Your task to perform on an android device: open chrome privacy settings Image 0: 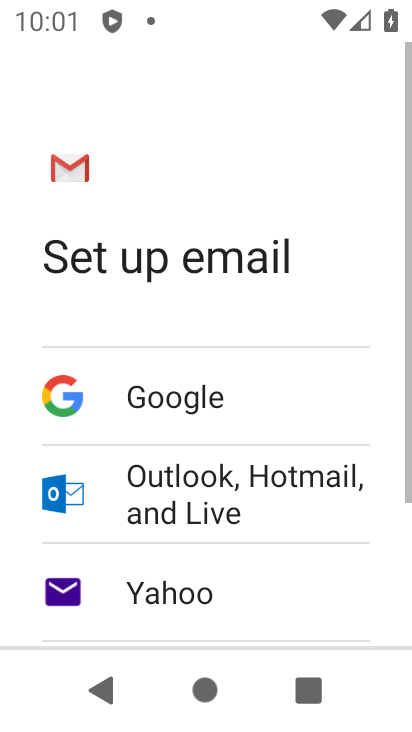
Step 0: press home button
Your task to perform on an android device: open chrome privacy settings Image 1: 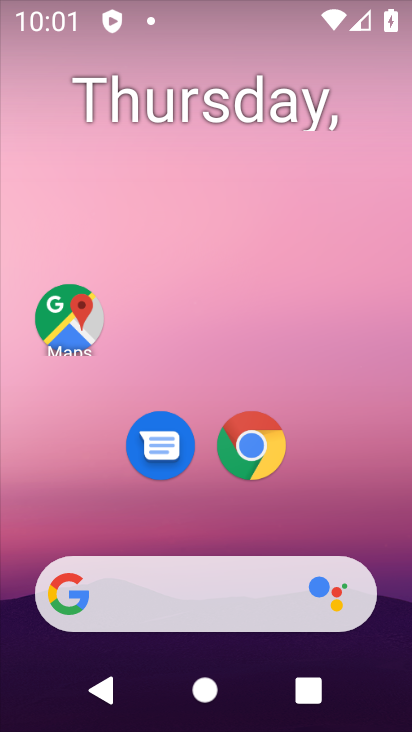
Step 1: drag from (201, 517) to (338, 41)
Your task to perform on an android device: open chrome privacy settings Image 2: 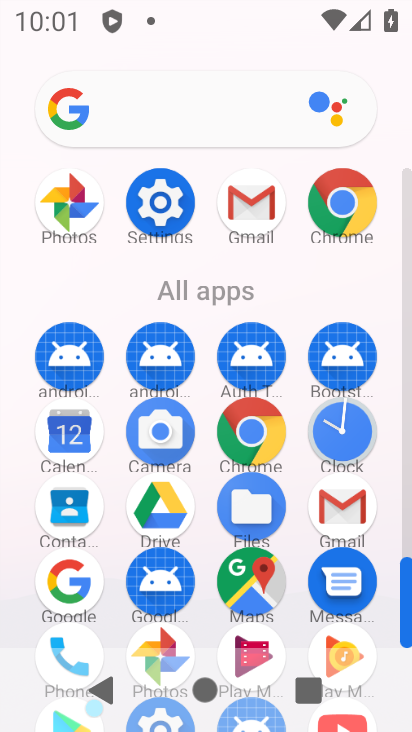
Step 2: click (267, 439)
Your task to perform on an android device: open chrome privacy settings Image 3: 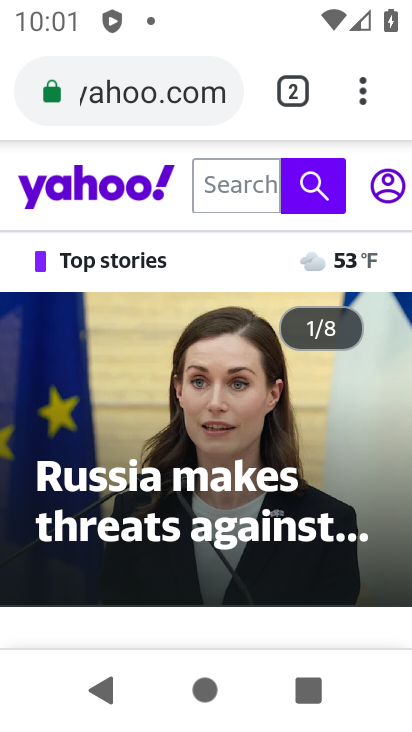
Step 3: click (361, 98)
Your task to perform on an android device: open chrome privacy settings Image 4: 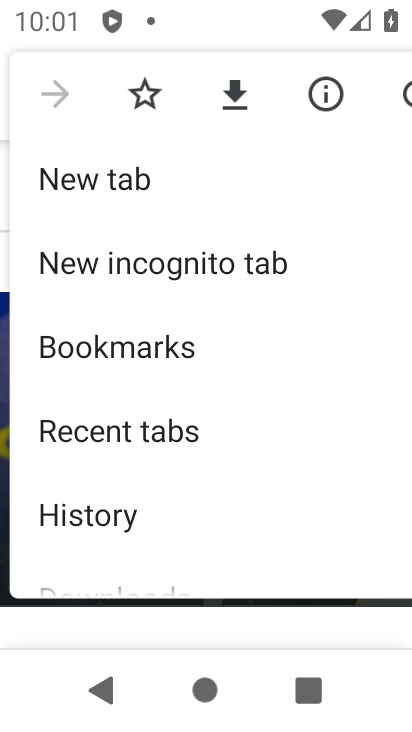
Step 4: drag from (149, 480) to (214, 219)
Your task to perform on an android device: open chrome privacy settings Image 5: 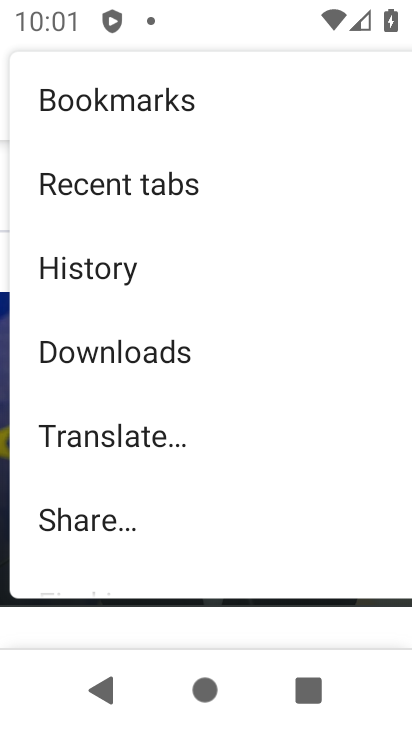
Step 5: drag from (148, 494) to (184, 236)
Your task to perform on an android device: open chrome privacy settings Image 6: 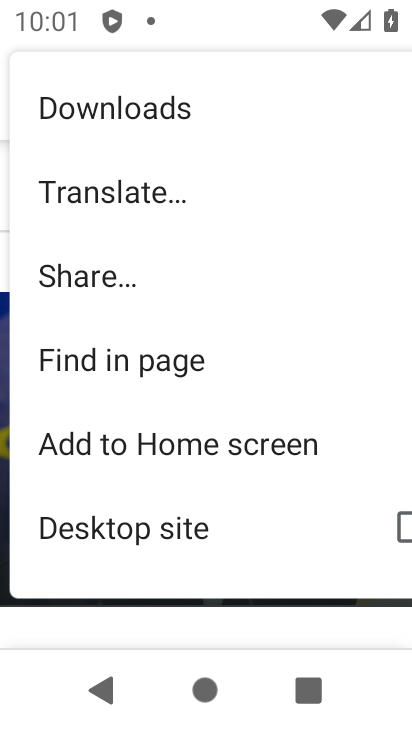
Step 6: drag from (111, 513) to (184, 247)
Your task to perform on an android device: open chrome privacy settings Image 7: 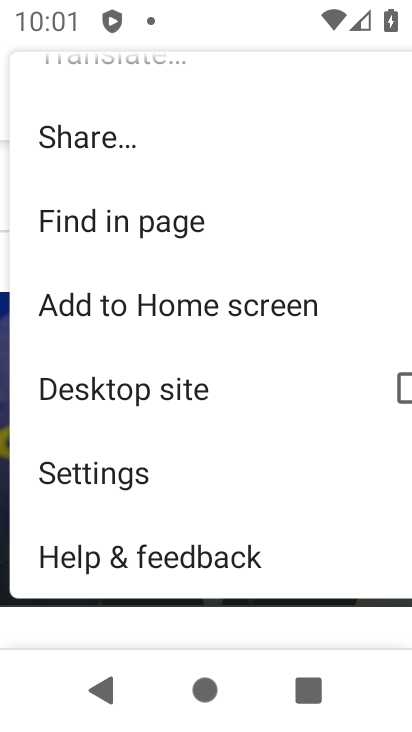
Step 7: click (118, 475)
Your task to perform on an android device: open chrome privacy settings Image 8: 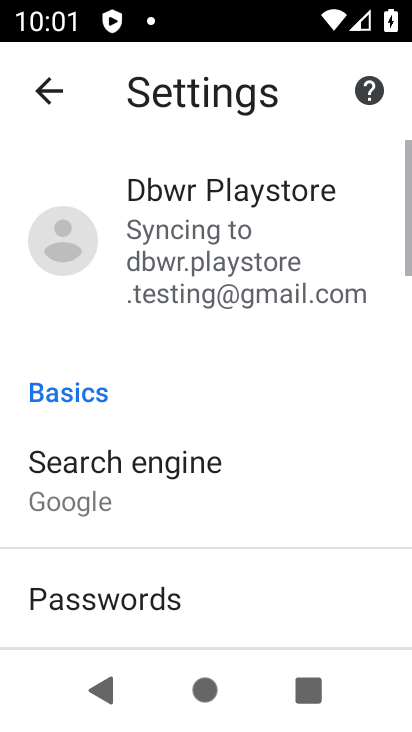
Step 8: drag from (151, 531) to (259, 96)
Your task to perform on an android device: open chrome privacy settings Image 9: 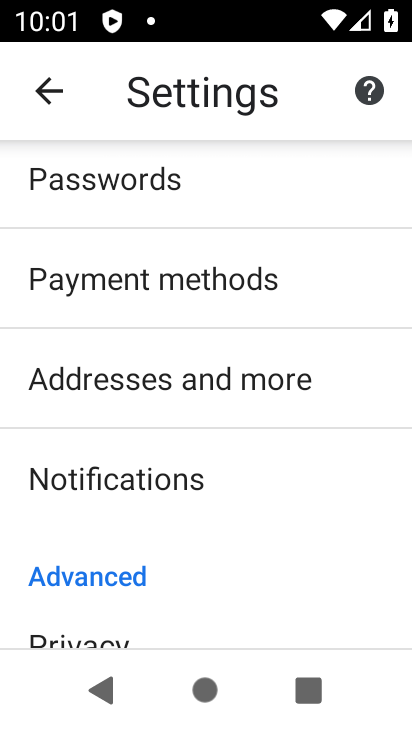
Step 9: drag from (228, 548) to (253, 346)
Your task to perform on an android device: open chrome privacy settings Image 10: 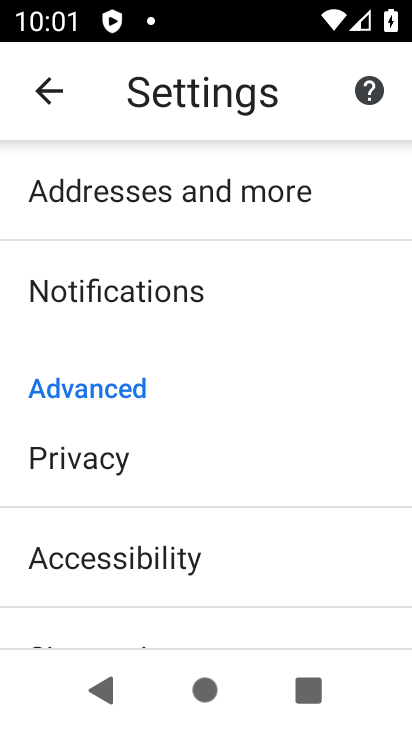
Step 10: click (138, 479)
Your task to perform on an android device: open chrome privacy settings Image 11: 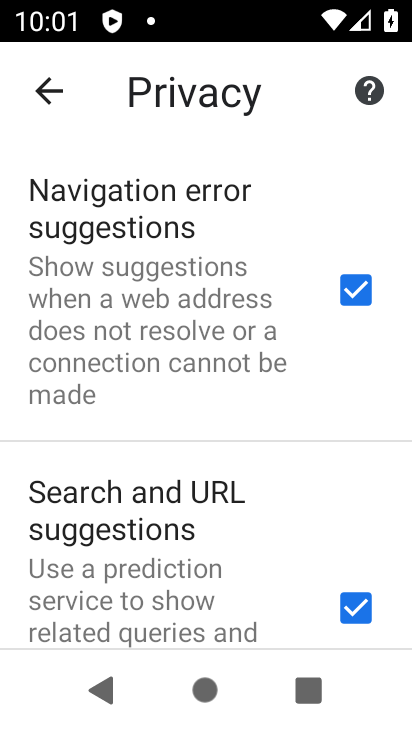
Step 11: task complete